Your task to perform on an android device: move a message to another label in the gmail app Image 0: 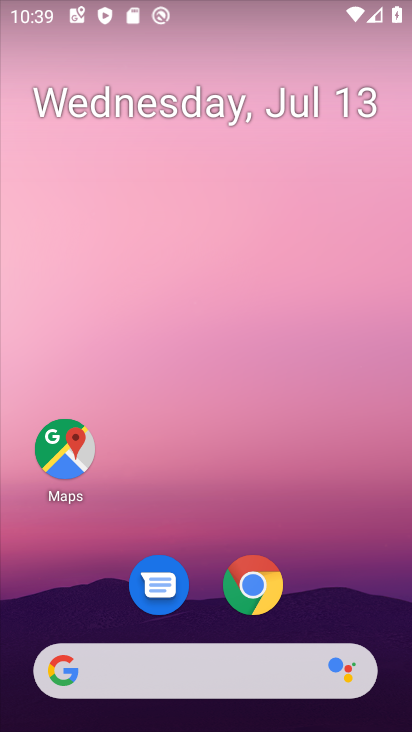
Step 0: drag from (336, 576) to (353, 46)
Your task to perform on an android device: move a message to another label in the gmail app Image 1: 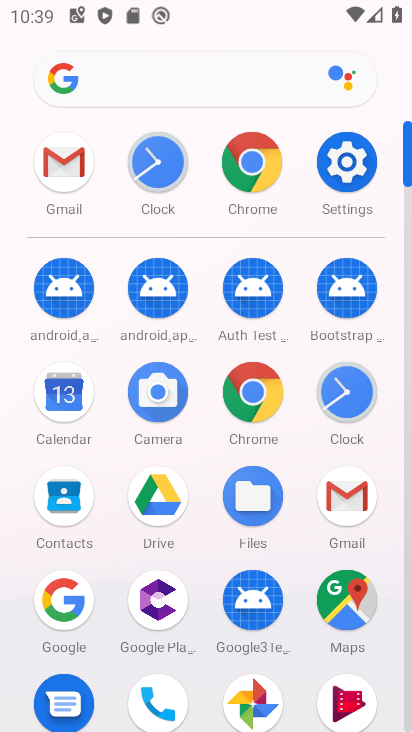
Step 1: click (330, 494)
Your task to perform on an android device: move a message to another label in the gmail app Image 2: 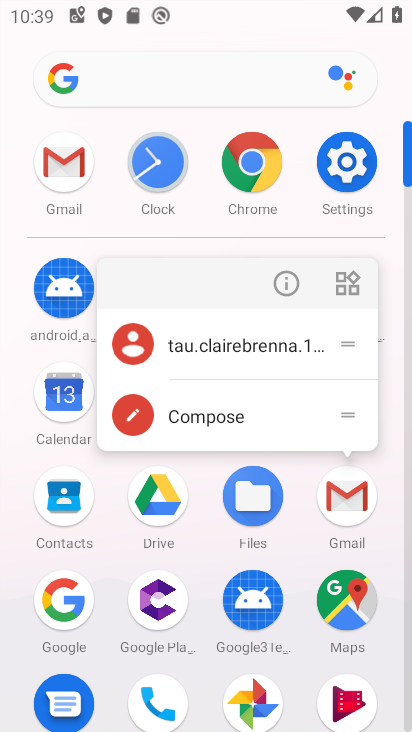
Step 2: click (342, 495)
Your task to perform on an android device: move a message to another label in the gmail app Image 3: 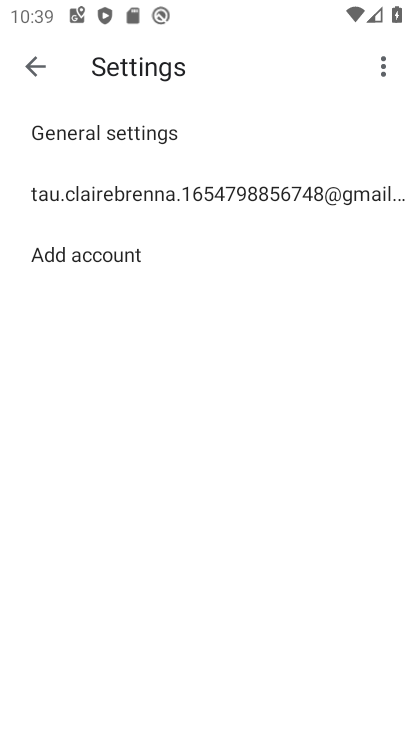
Step 3: click (40, 65)
Your task to perform on an android device: move a message to another label in the gmail app Image 4: 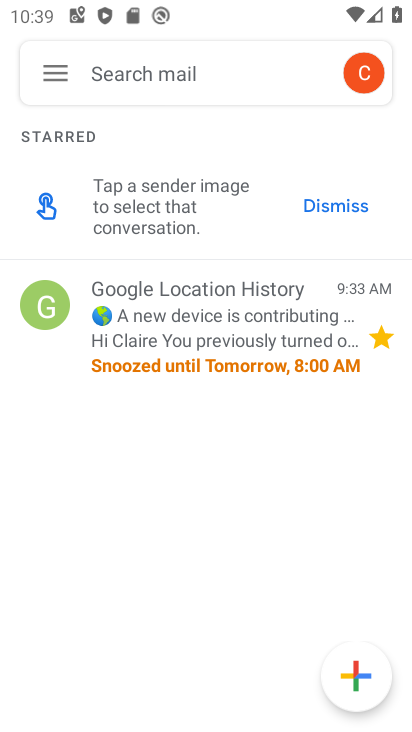
Step 4: click (191, 324)
Your task to perform on an android device: move a message to another label in the gmail app Image 5: 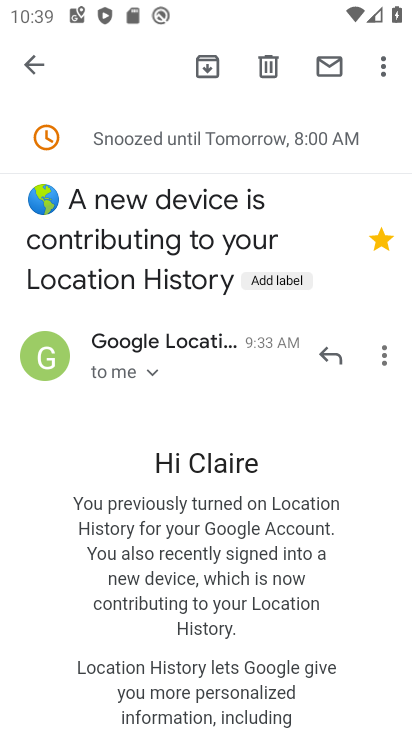
Step 5: click (377, 65)
Your task to perform on an android device: move a message to another label in the gmail app Image 6: 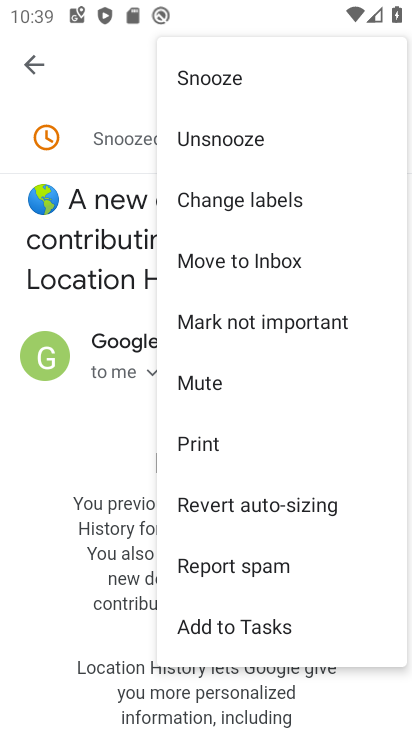
Step 6: drag from (259, 170) to (255, 348)
Your task to perform on an android device: move a message to another label in the gmail app Image 7: 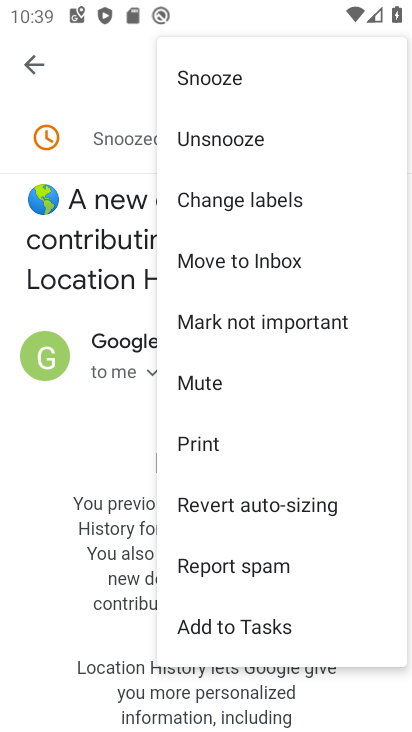
Step 7: click (269, 253)
Your task to perform on an android device: move a message to another label in the gmail app Image 8: 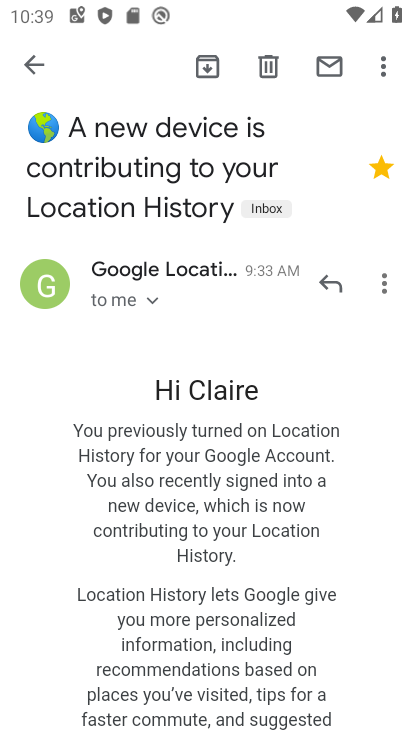
Step 8: task complete